Your task to perform on an android device: Open Google Chrome and click the shortcut for Amazon.com Image 0: 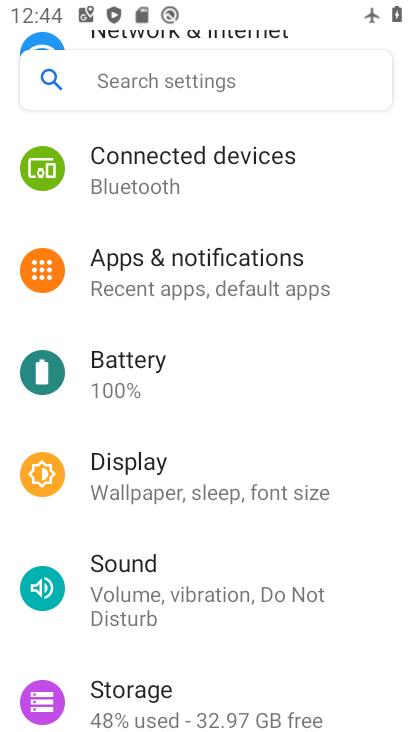
Step 0: drag from (205, 575) to (270, 204)
Your task to perform on an android device: Open Google Chrome and click the shortcut for Amazon.com Image 1: 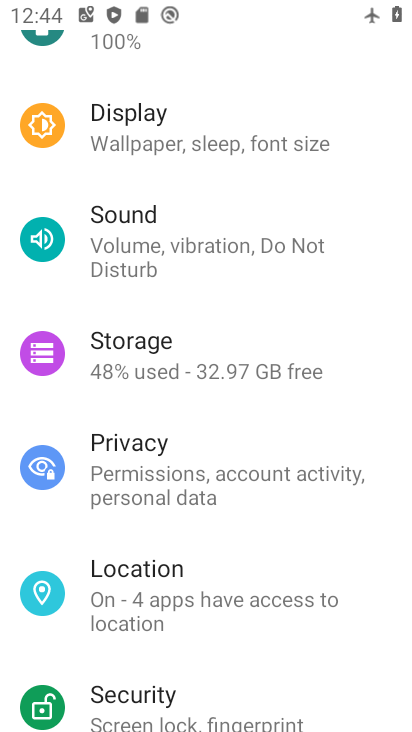
Step 1: press home button
Your task to perform on an android device: Open Google Chrome and click the shortcut for Amazon.com Image 2: 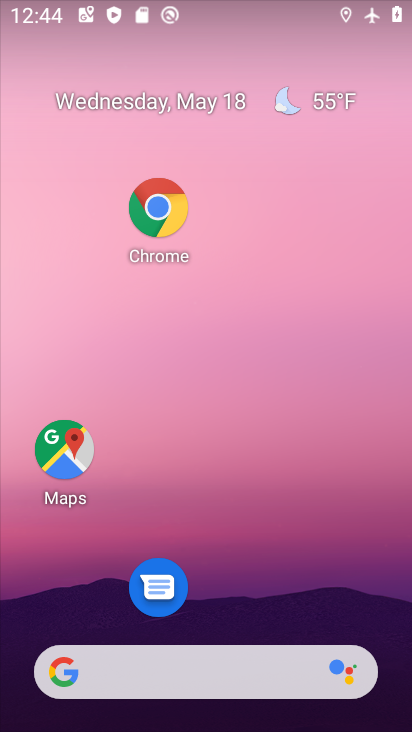
Step 2: click (157, 209)
Your task to perform on an android device: Open Google Chrome and click the shortcut for Amazon.com Image 3: 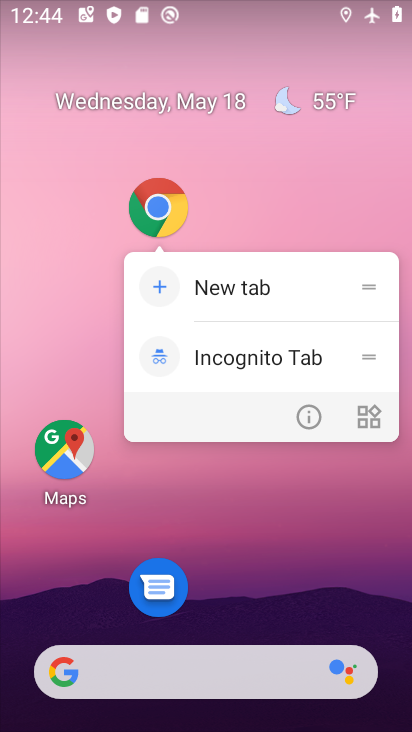
Step 3: click (167, 211)
Your task to perform on an android device: Open Google Chrome and click the shortcut for Amazon.com Image 4: 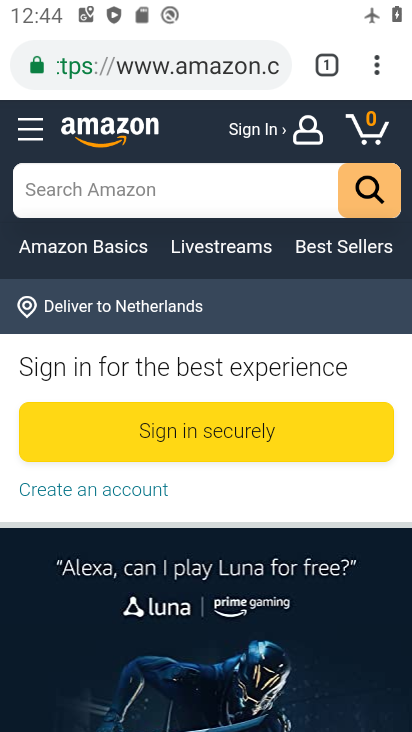
Step 4: press back button
Your task to perform on an android device: Open Google Chrome and click the shortcut for Amazon.com Image 5: 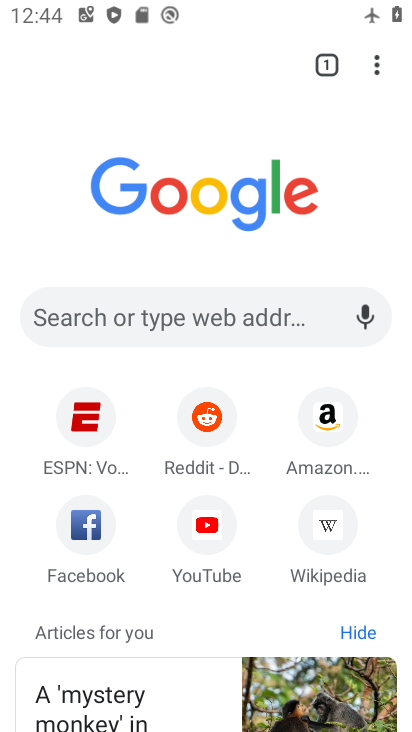
Step 5: click (339, 419)
Your task to perform on an android device: Open Google Chrome and click the shortcut for Amazon.com Image 6: 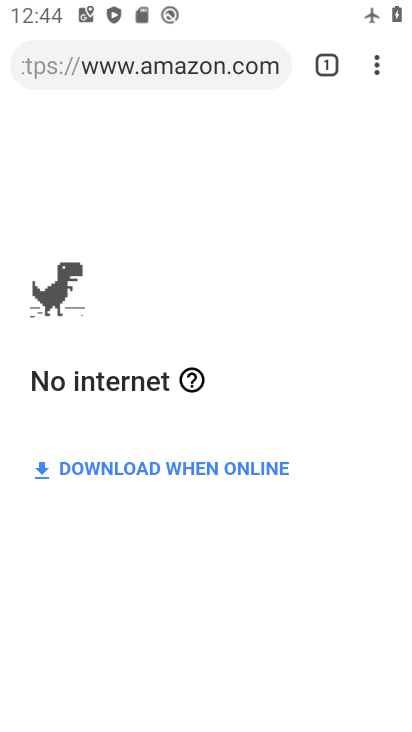
Step 6: task complete